Your task to perform on an android device: Open Amazon Image 0: 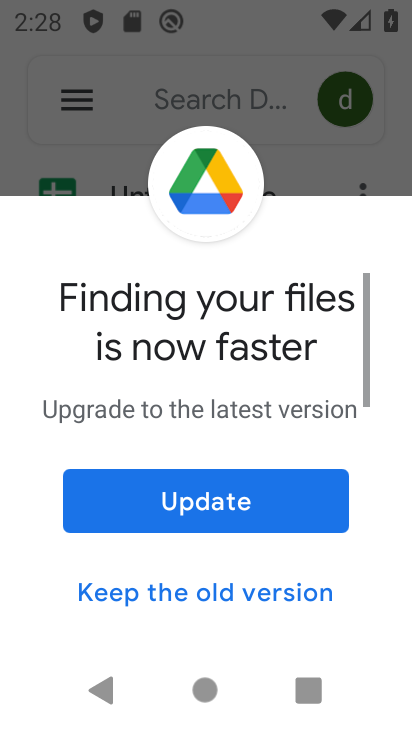
Step 0: press home button
Your task to perform on an android device: Open Amazon Image 1: 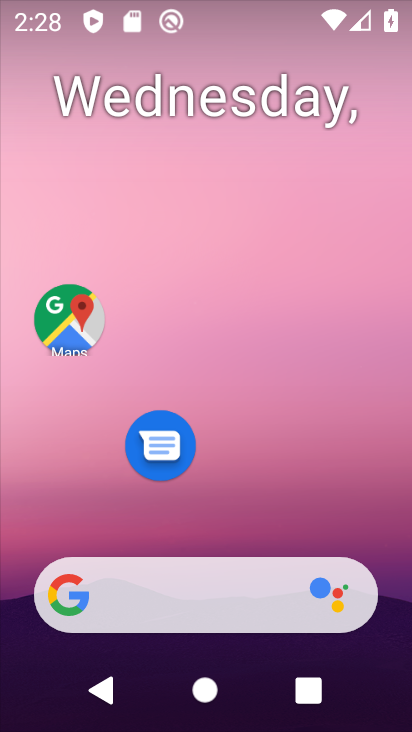
Step 1: drag from (201, 537) to (244, 1)
Your task to perform on an android device: Open Amazon Image 2: 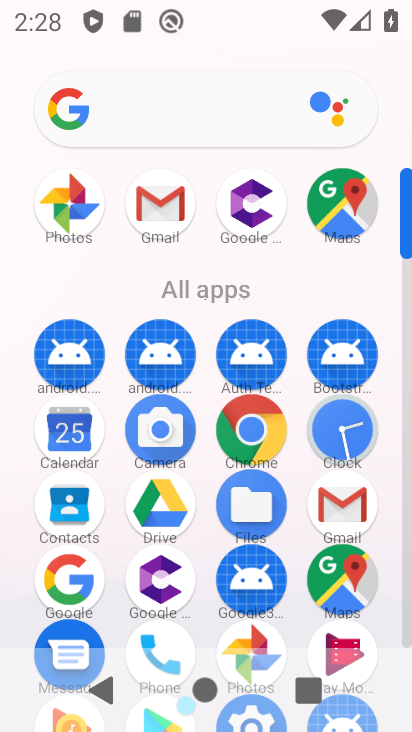
Step 2: click (244, 437)
Your task to perform on an android device: Open Amazon Image 3: 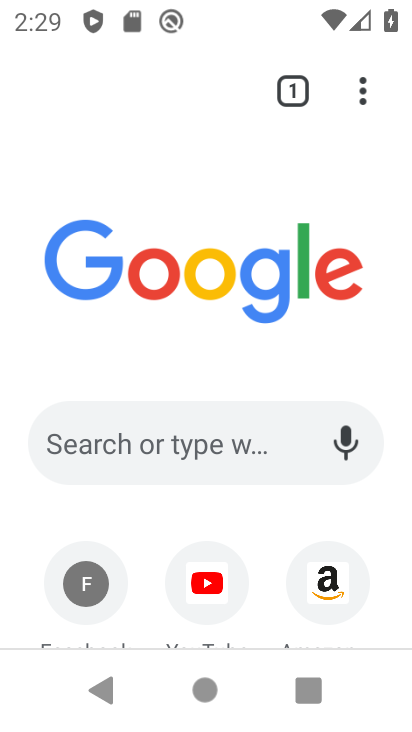
Step 3: click (324, 591)
Your task to perform on an android device: Open Amazon Image 4: 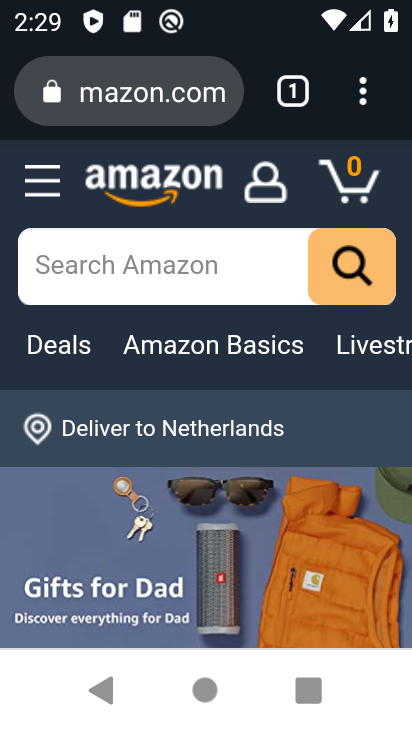
Step 4: task complete